Your task to perform on an android device: Play the last video I watched on Youtube Image 0: 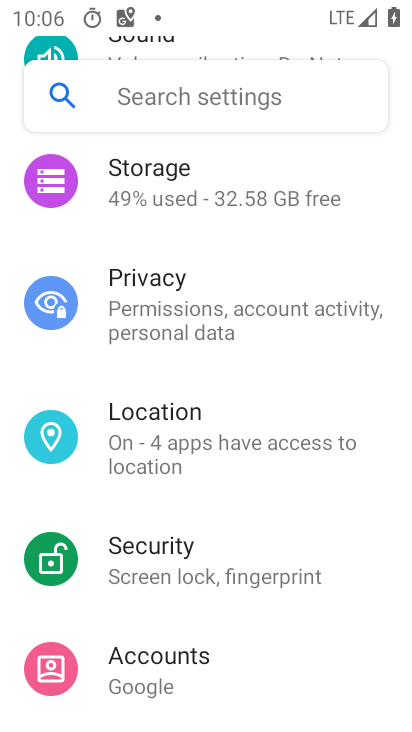
Step 0: press home button
Your task to perform on an android device: Play the last video I watched on Youtube Image 1: 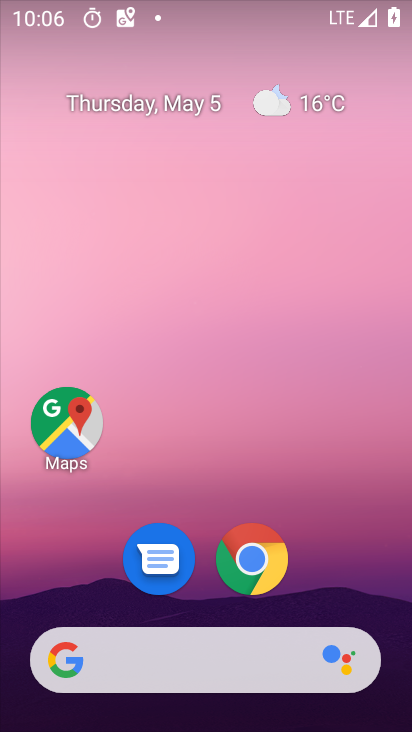
Step 1: drag from (264, 485) to (281, 46)
Your task to perform on an android device: Play the last video I watched on Youtube Image 2: 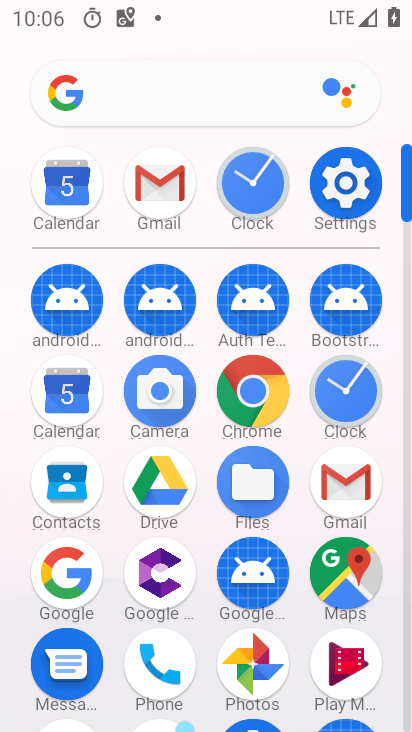
Step 2: drag from (287, 600) to (305, 245)
Your task to perform on an android device: Play the last video I watched on Youtube Image 3: 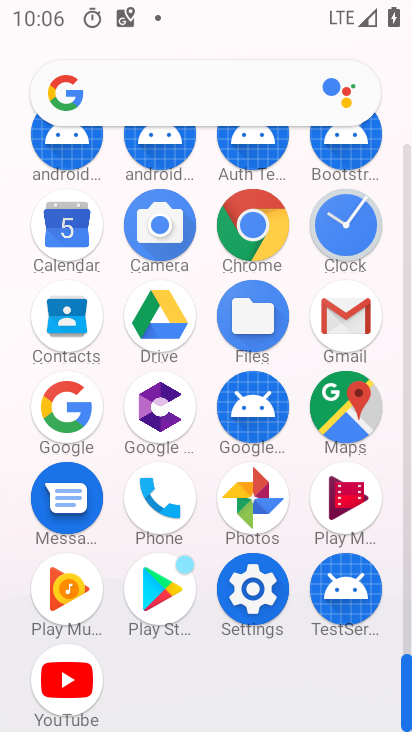
Step 3: click (67, 671)
Your task to perform on an android device: Play the last video I watched on Youtube Image 4: 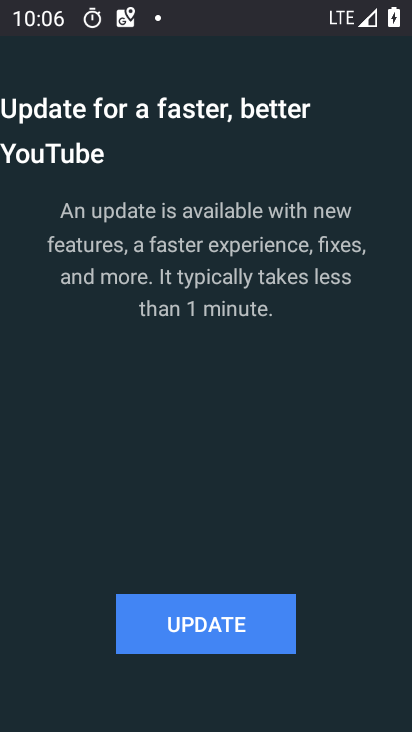
Step 4: click (197, 637)
Your task to perform on an android device: Play the last video I watched on Youtube Image 5: 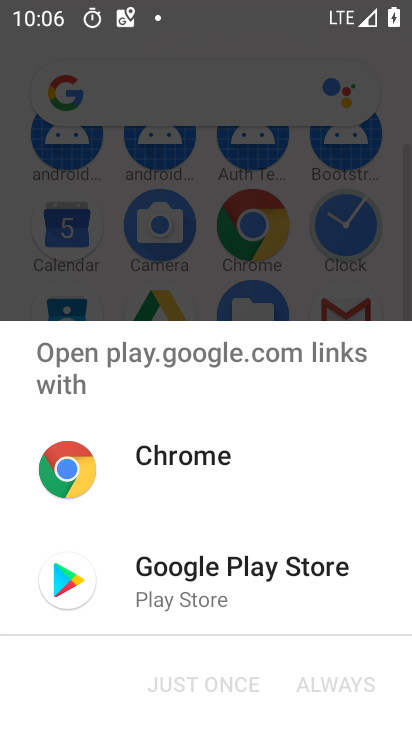
Step 5: click (258, 570)
Your task to perform on an android device: Play the last video I watched on Youtube Image 6: 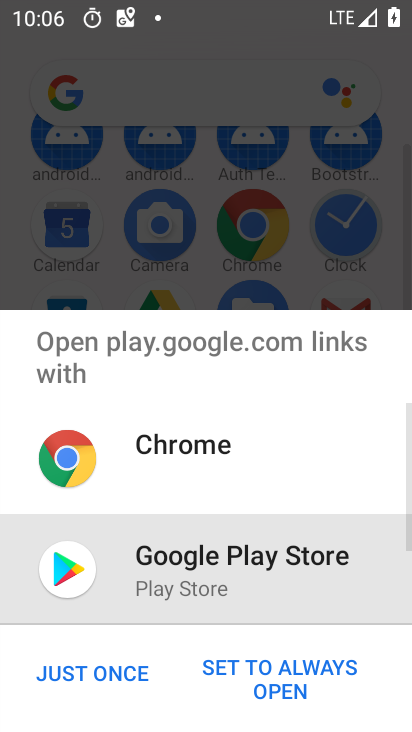
Step 6: click (137, 678)
Your task to perform on an android device: Play the last video I watched on Youtube Image 7: 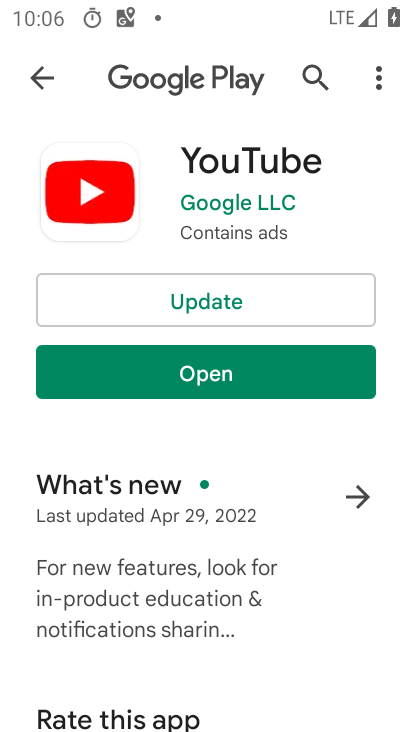
Step 7: click (253, 307)
Your task to perform on an android device: Play the last video I watched on Youtube Image 8: 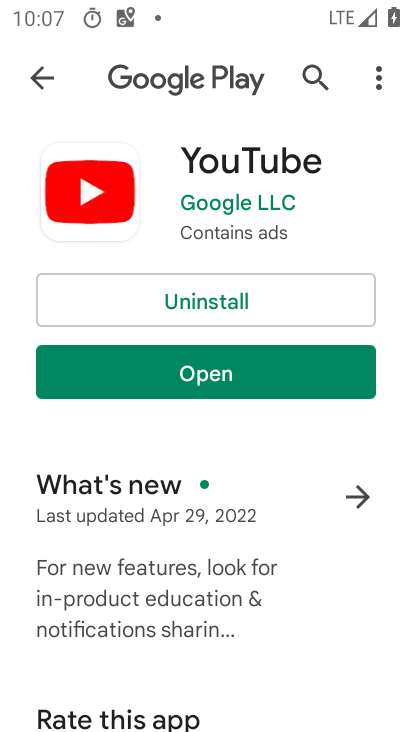
Step 8: click (240, 391)
Your task to perform on an android device: Play the last video I watched on Youtube Image 9: 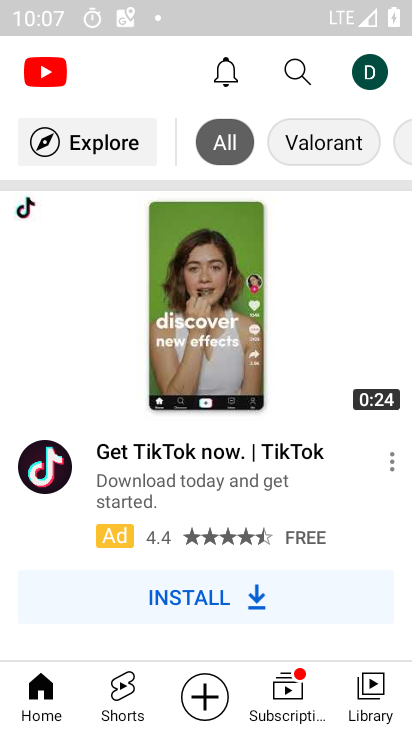
Step 9: click (376, 695)
Your task to perform on an android device: Play the last video I watched on Youtube Image 10: 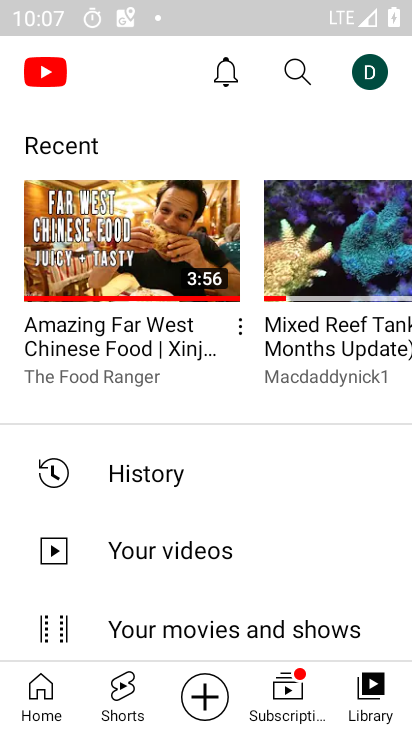
Step 10: click (125, 235)
Your task to perform on an android device: Play the last video I watched on Youtube Image 11: 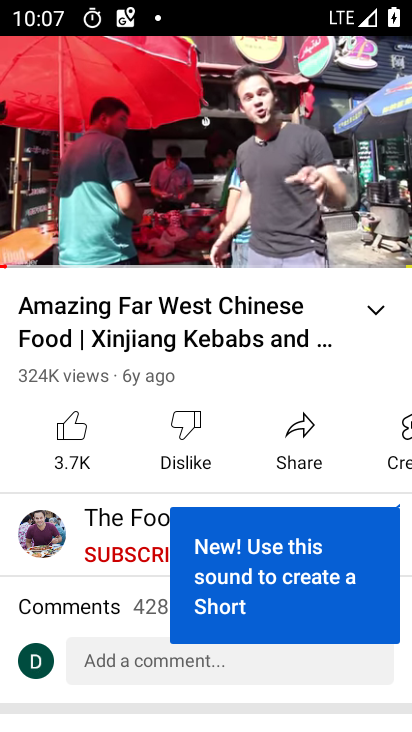
Step 11: task complete